Your task to perform on an android device: Open Youtube and go to the subscriptions tab Image 0: 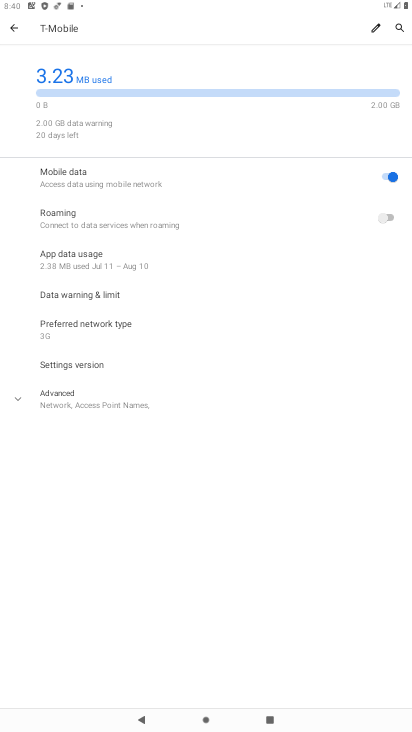
Step 0: press home button
Your task to perform on an android device: Open Youtube and go to the subscriptions tab Image 1: 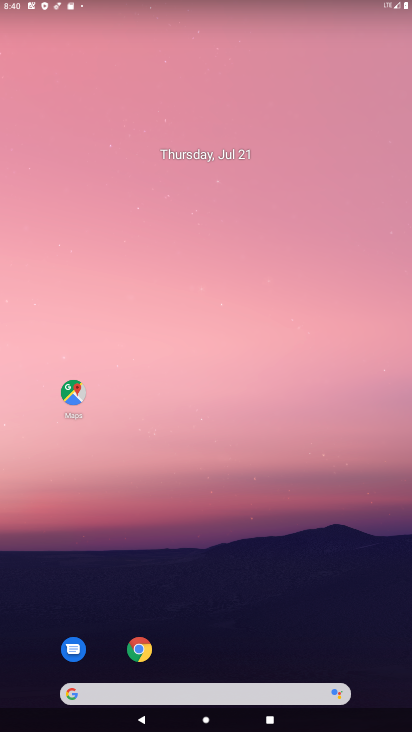
Step 1: drag from (173, 616) to (273, 17)
Your task to perform on an android device: Open Youtube and go to the subscriptions tab Image 2: 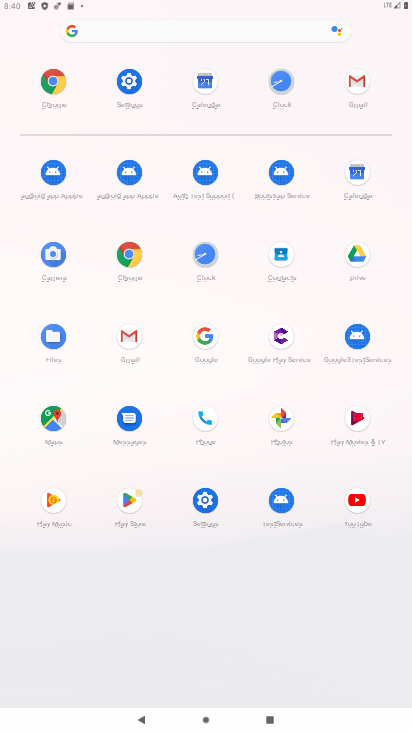
Step 2: click (358, 518)
Your task to perform on an android device: Open Youtube and go to the subscriptions tab Image 3: 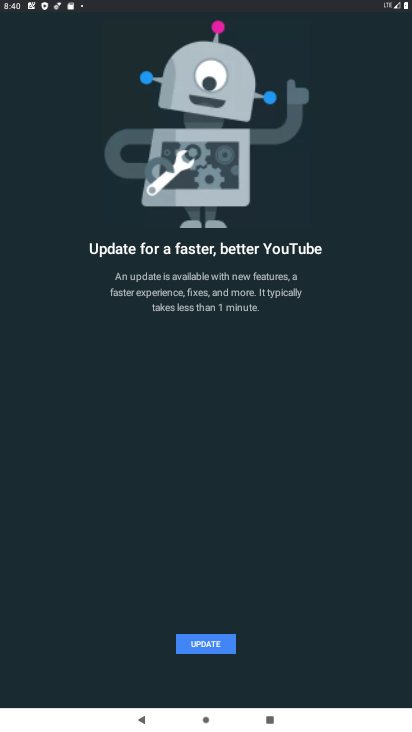
Step 3: click (210, 642)
Your task to perform on an android device: Open Youtube and go to the subscriptions tab Image 4: 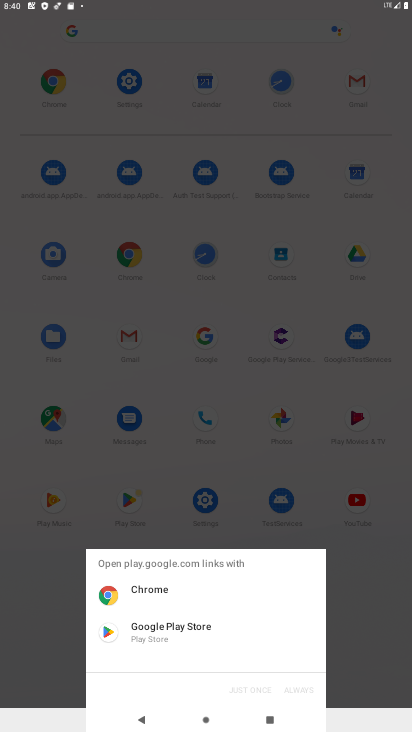
Step 4: click (171, 619)
Your task to perform on an android device: Open Youtube and go to the subscriptions tab Image 5: 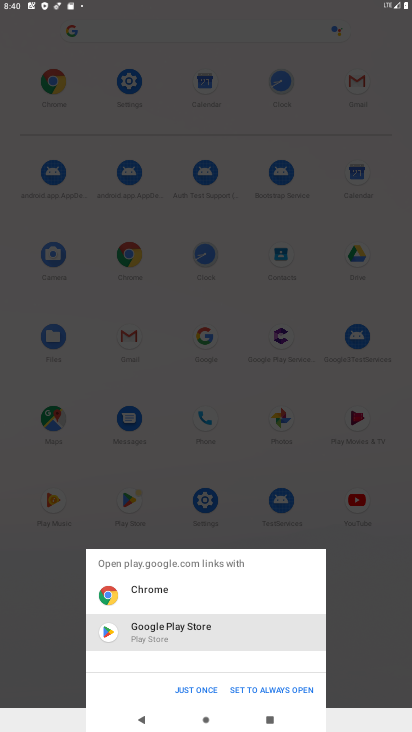
Step 5: click (196, 687)
Your task to perform on an android device: Open Youtube and go to the subscriptions tab Image 6: 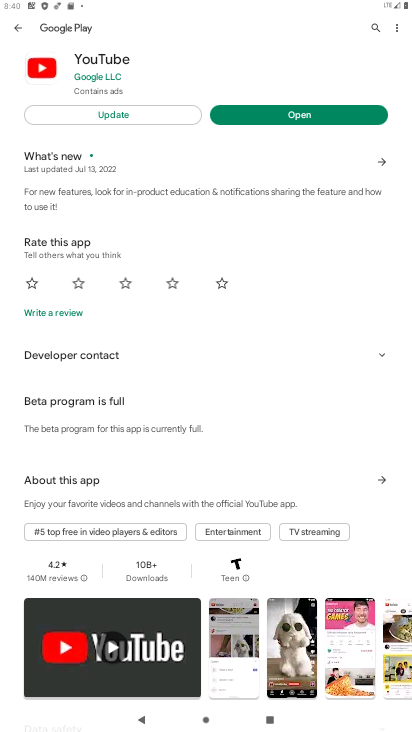
Step 6: click (153, 113)
Your task to perform on an android device: Open Youtube and go to the subscriptions tab Image 7: 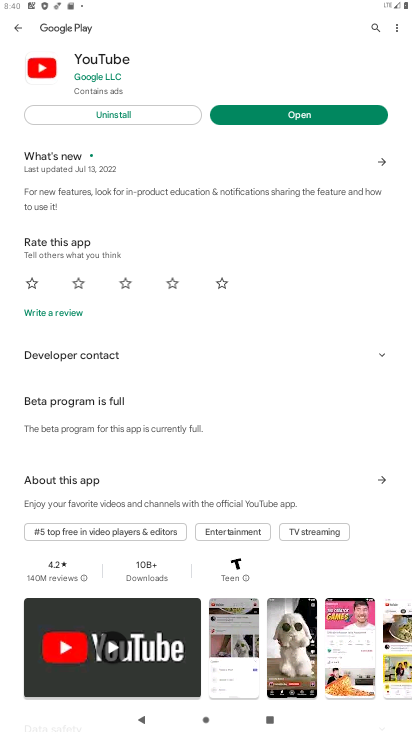
Step 7: click (339, 113)
Your task to perform on an android device: Open Youtube and go to the subscriptions tab Image 8: 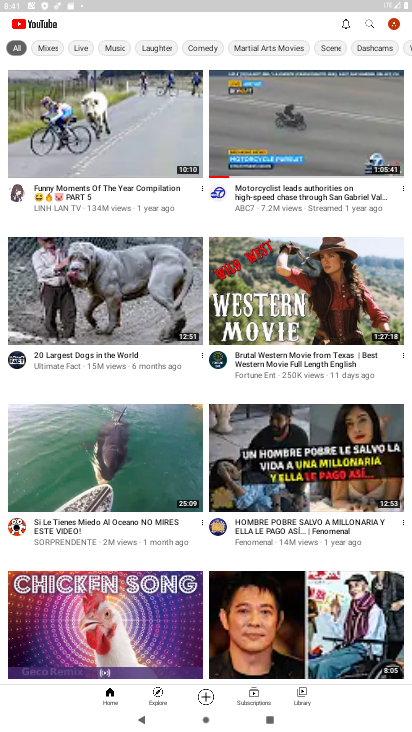
Step 8: click (250, 694)
Your task to perform on an android device: Open Youtube and go to the subscriptions tab Image 9: 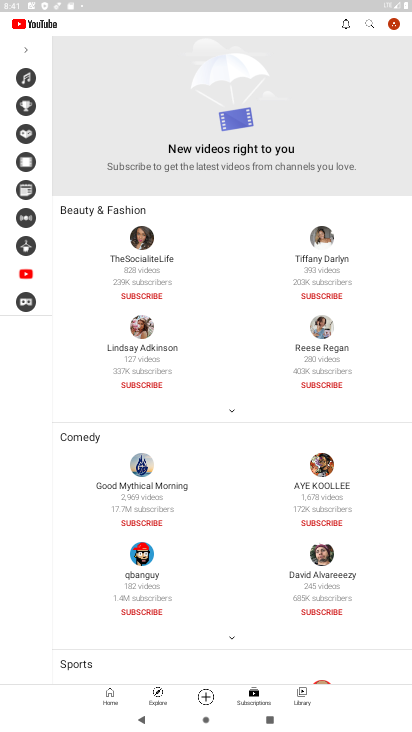
Step 9: task complete